Your task to perform on an android device: Open sound settings Image 0: 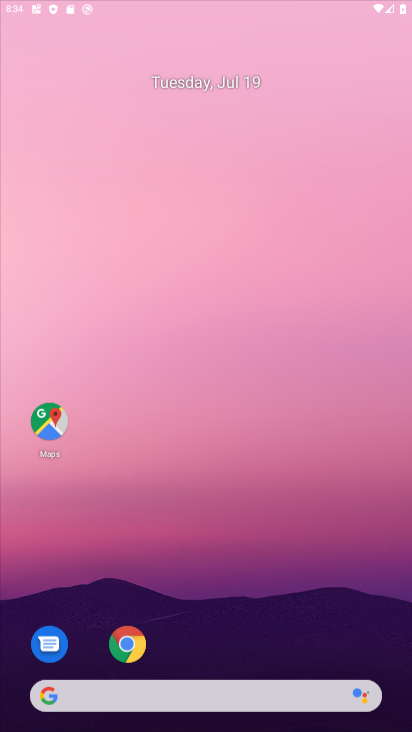
Step 0: click (146, 154)
Your task to perform on an android device: Open sound settings Image 1: 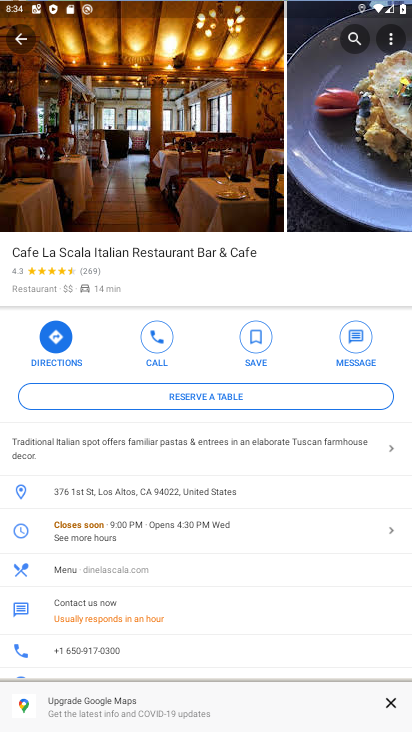
Step 1: drag from (180, 194) to (180, 148)
Your task to perform on an android device: Open sound settings Image 2: 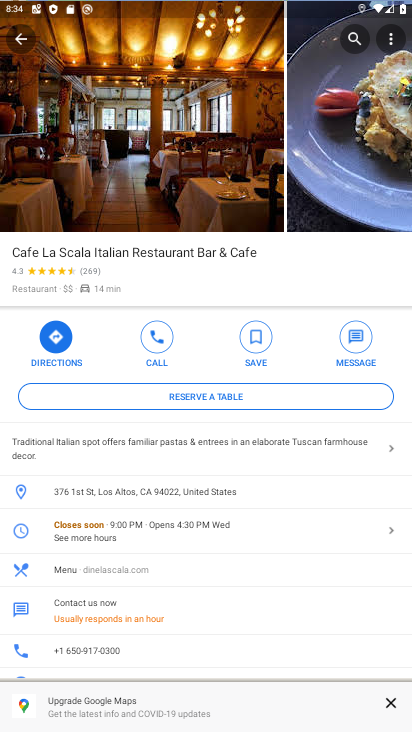
Step 2: press home button
Your task to perform on an android device: Open sound settings Image 3: 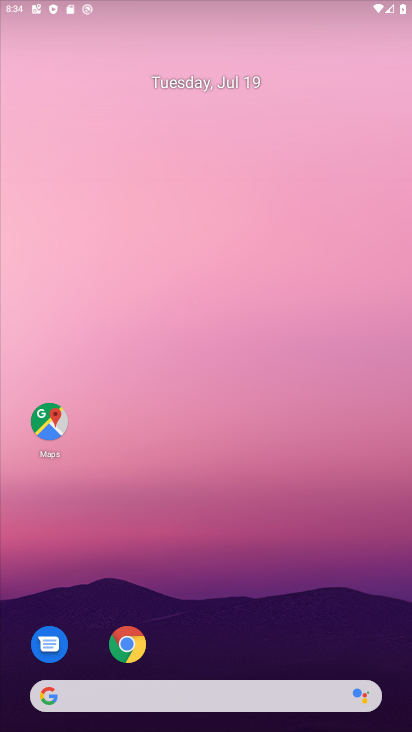
Step 3: drag from (169, 592) to (237, 261)
Your task to perform on an android device: Open sound settings Image 4: 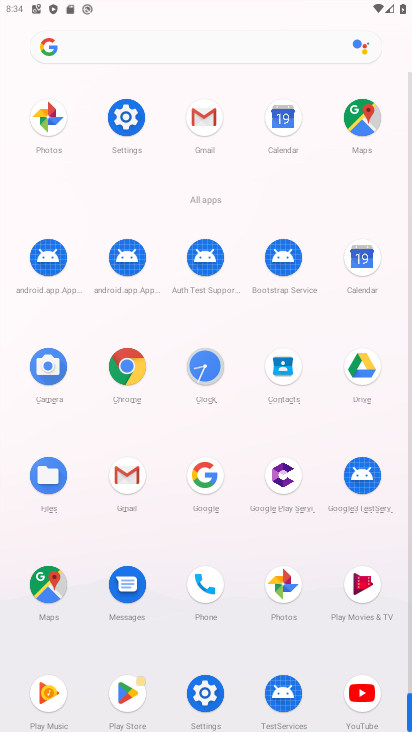
Step 4: click (106, 42)
Your task to perform on an android device: Open sound settings Image 5: 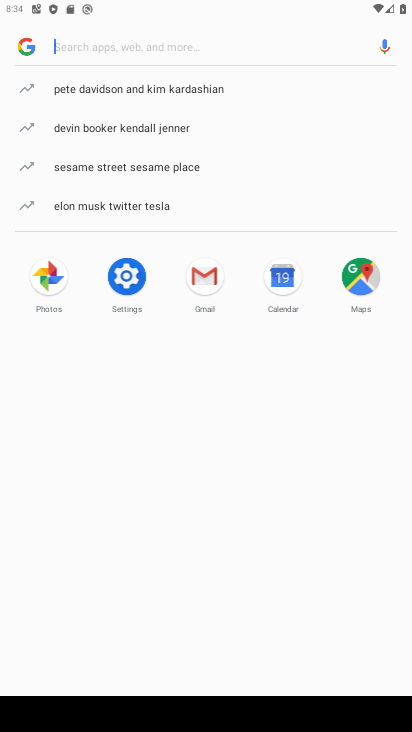
Step 5: press home button
Your task to perform on an android device: Open sound settings Image 6: 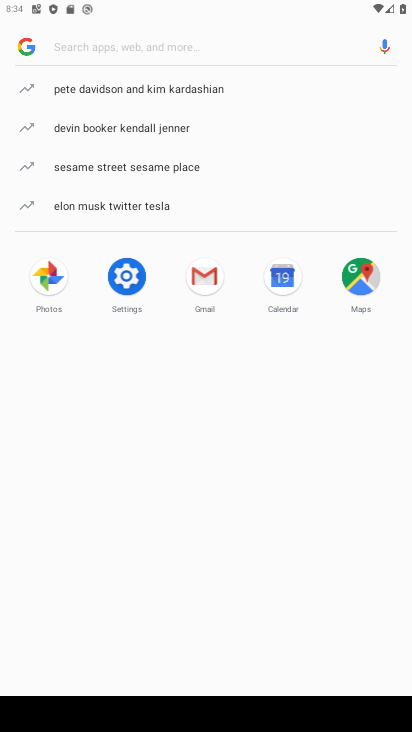
Step 6: drag from (253, 354) to (255, 41)
Your task to perform on an android device: Open sound settings Image 7: 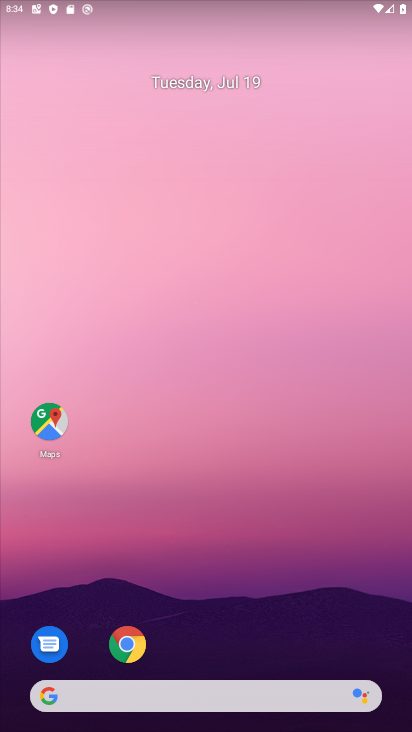
Step 7: drag from (295, 264) to (346, 46)
Your task to perform on an android device: Open sound settings Image 8: 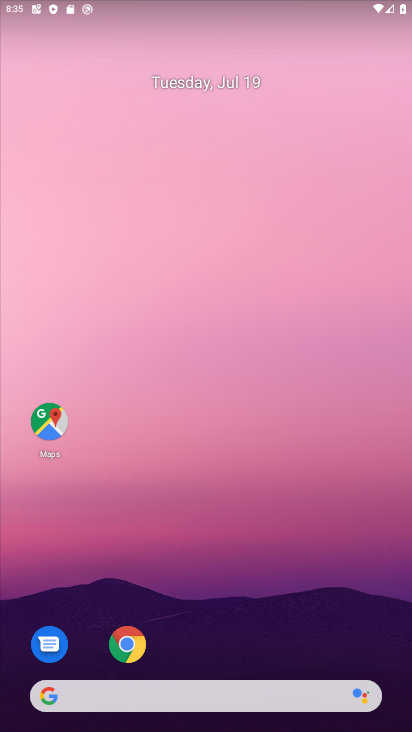
Step 8: drag from (215, 463) to (259, 17)
Your task to perform on an android device: Open sound settings Image 9: 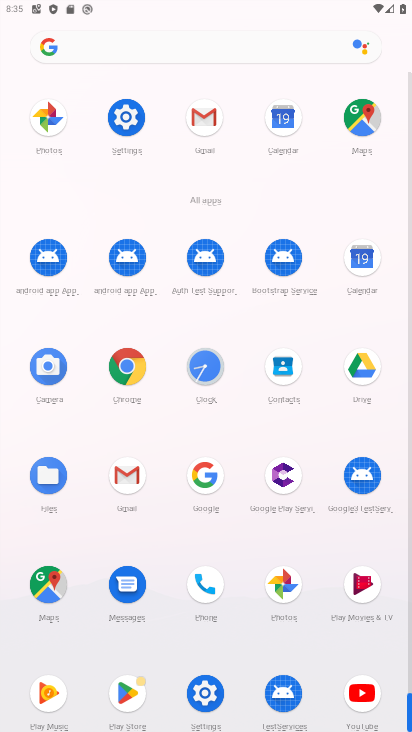
Step 9: click (129, 108)
Your task to perform on an android device: Open sound settings Image 10: 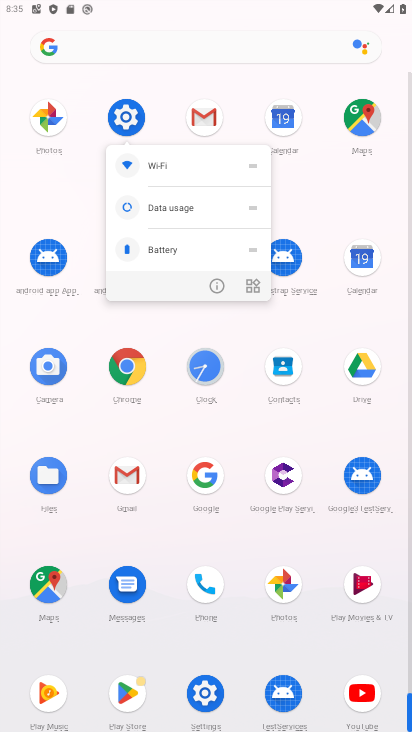
Step 10: click (220, 294)
Your task to perform on an android device: Open sound settings Image 11: 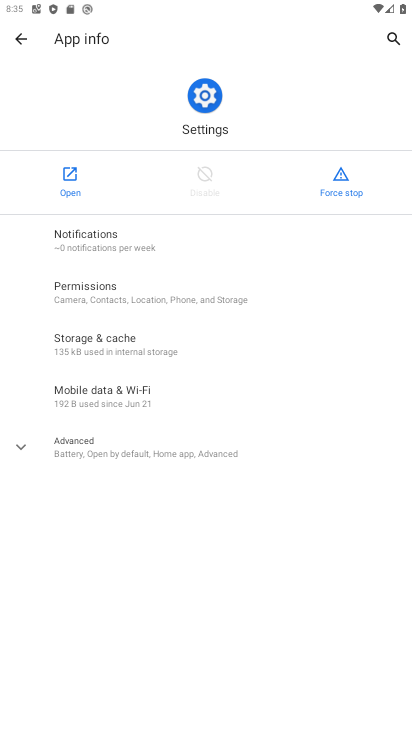
Step 11: click (73, 178)
Your task to perform on an android device: Open sound settings Image 12: 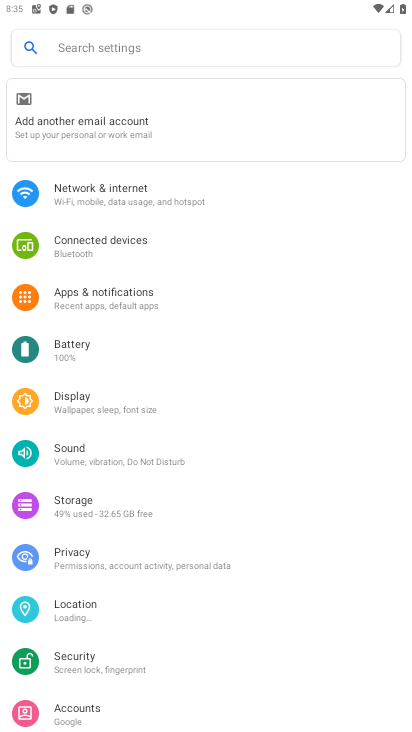
Step 12: click (126, 457)
Your task to perform on an android device: Open sound settings Image 13: 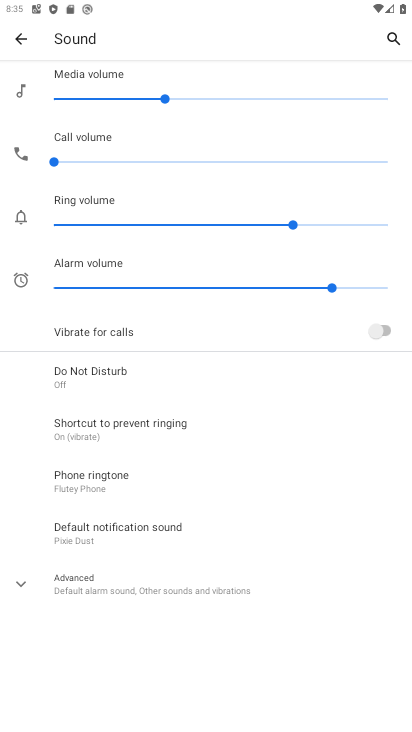
Step 13: task complete